Your task to perform on an android device: Search for seafood restaurants on Google Maps Image 0: 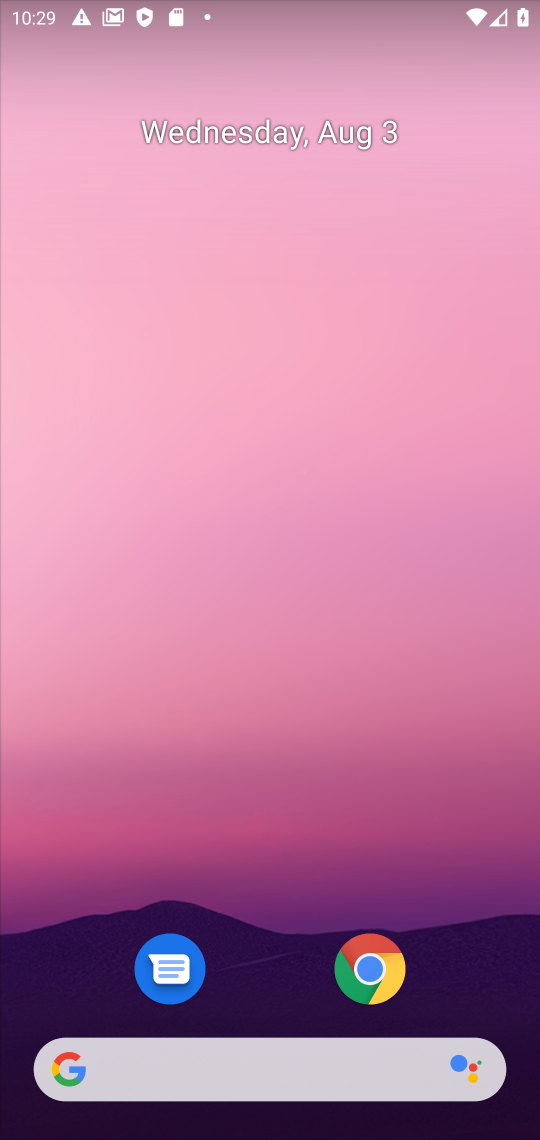
Step 0: drag from (307, 1026) to (248, 7)
Your task to perform on an android device: Search for seafood restaurants on Google Maps Image 1: 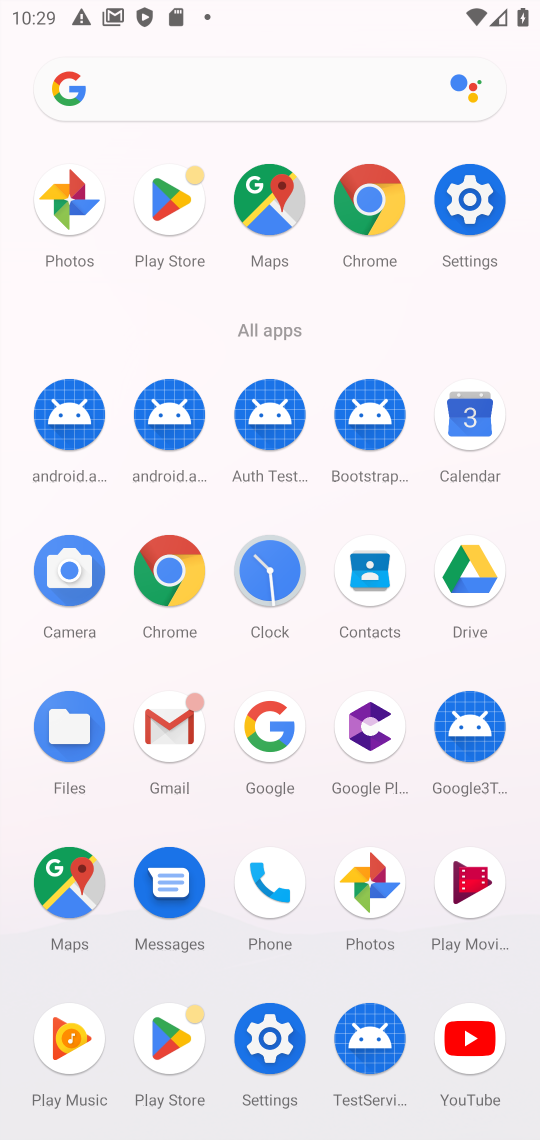
Step 1: click (78, 883)
Your task to perform on an android device: Search for seafood restaurants on Google Maps Image 2: 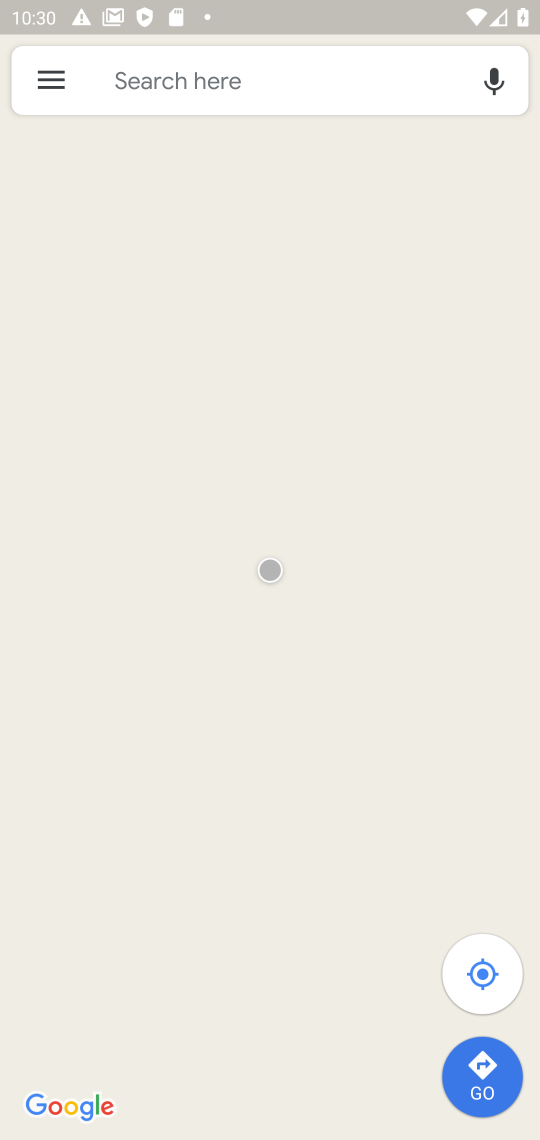
Step 2: click (235, 72)
Your task to perform on an android device: Search for seafood restaurants on Google Maps Image 3: 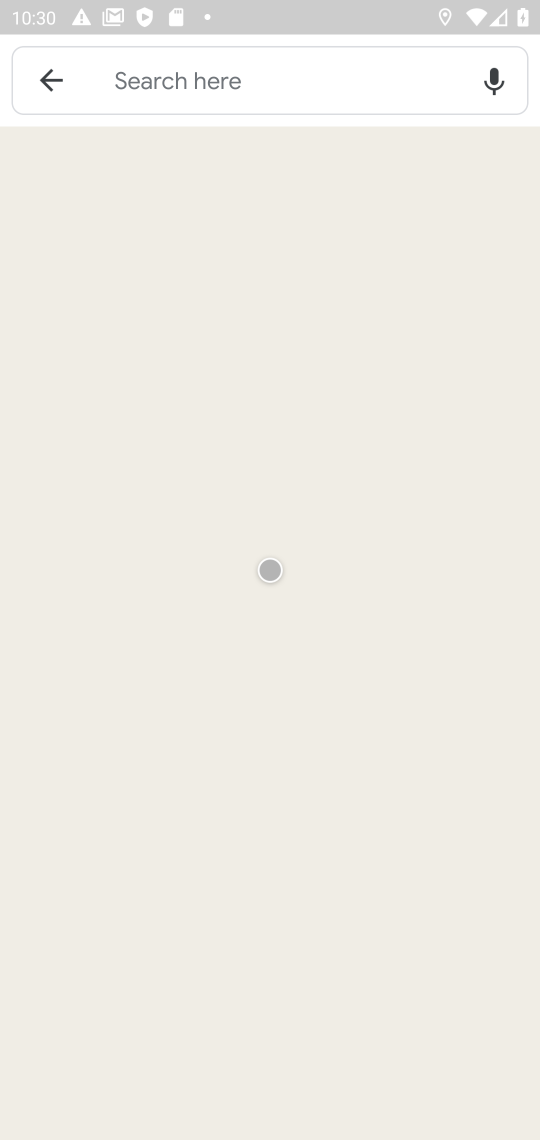
Step 3: click (225, 87)
Your task to perform on an android device: Search for seafood restaurants on Google Maps Image 4: 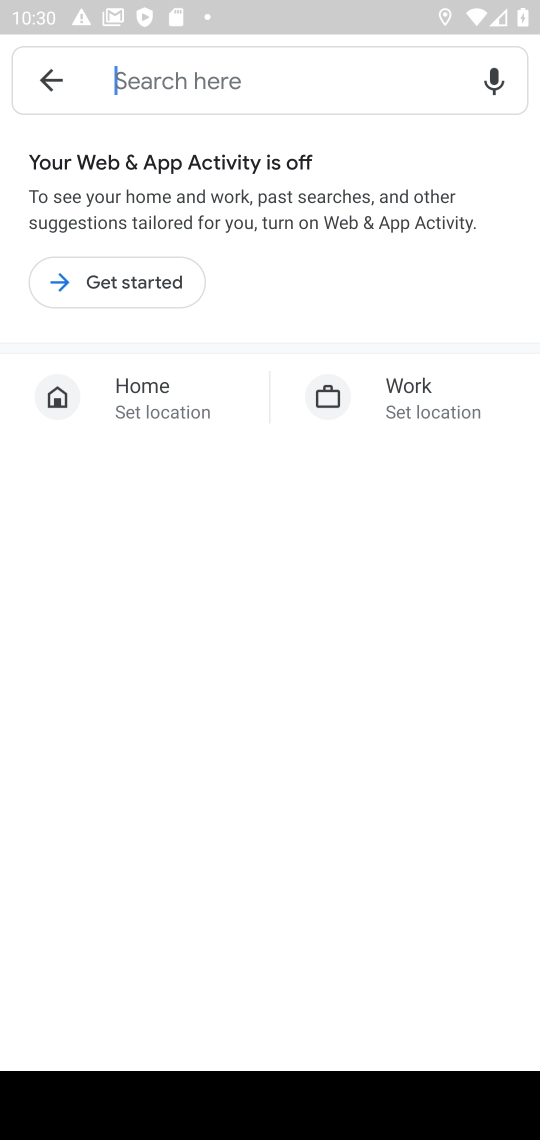
Step 4: click (133, 273)
Your task to perform on an android device: Search for seafood restaurants on Google Maps Image 5: 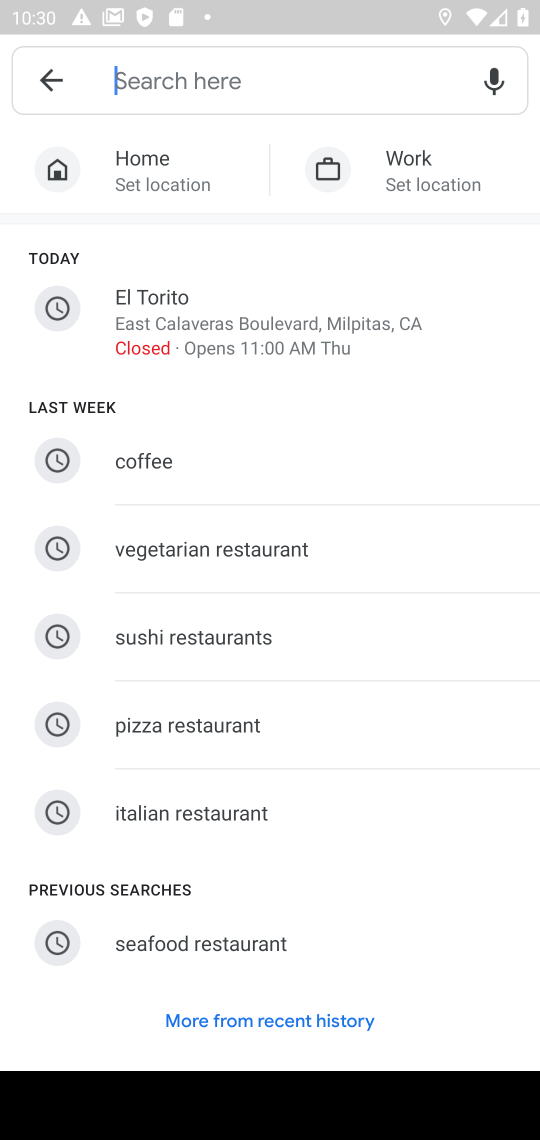
Step 5: click (205, 933)
Your task to perform on an android device: Search for seafood restaurants on Google Maps Image 6: 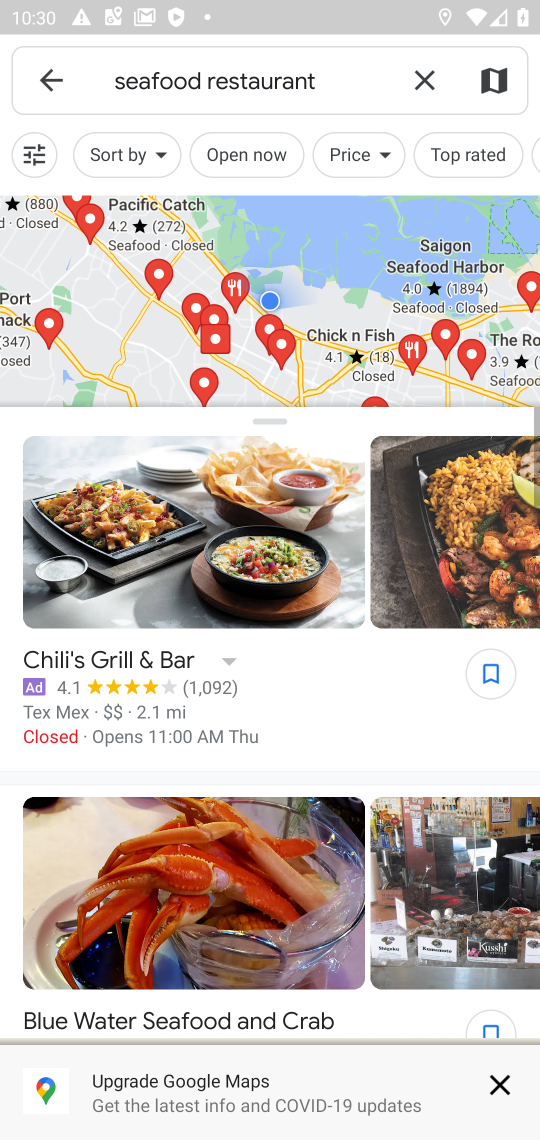
Step 6: task complete